Your task to perform on an android device: Open Chrome and go to settings Image 0: 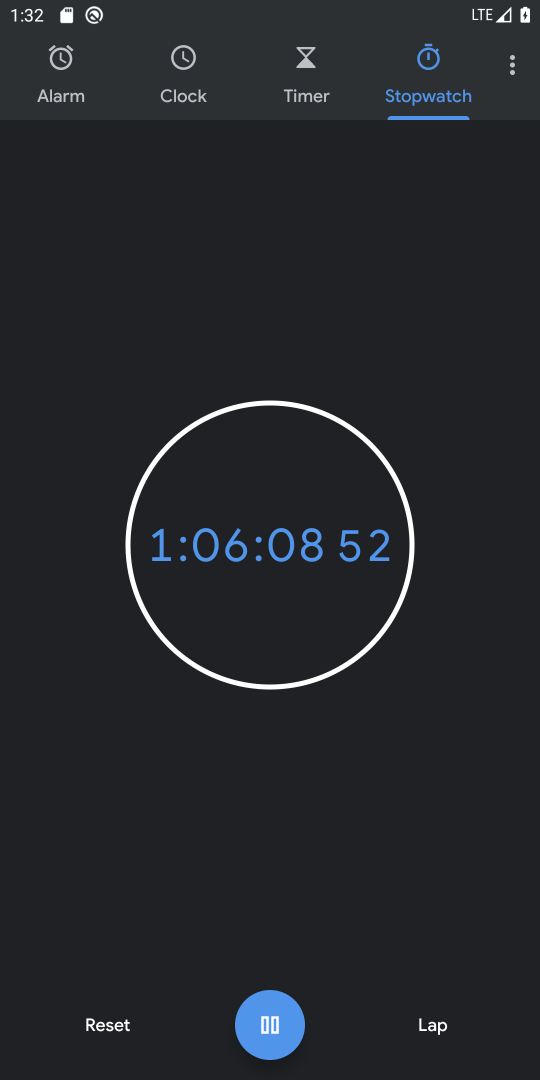
Step 0: press home button
Your task to perform on an android device: Open Chrome and go to settings Image 1: 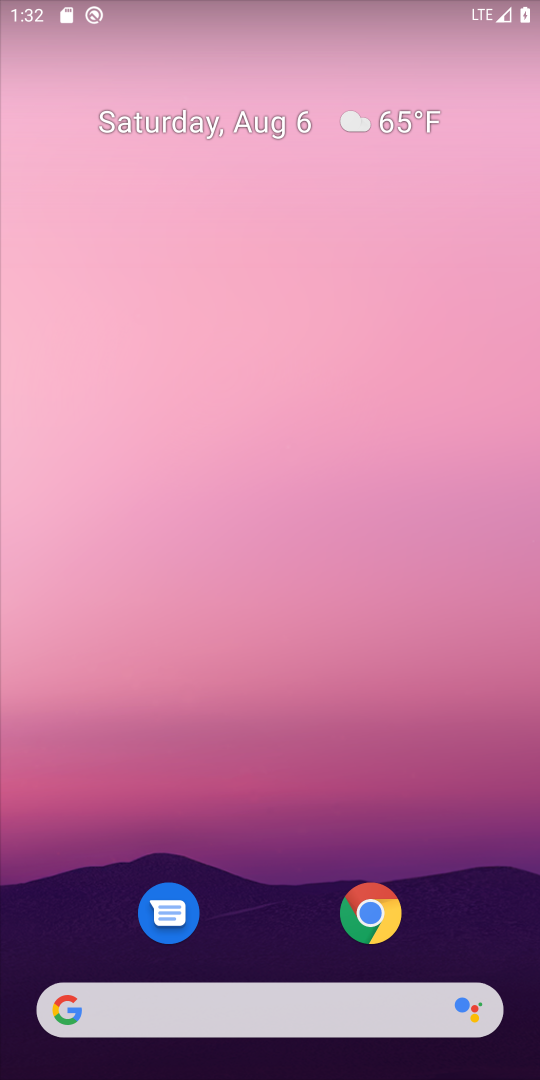
Step 1: drag from (444, 923) to (471, 329)
Your task to perform on an android device: Open Chrome and go to settings Image 2: 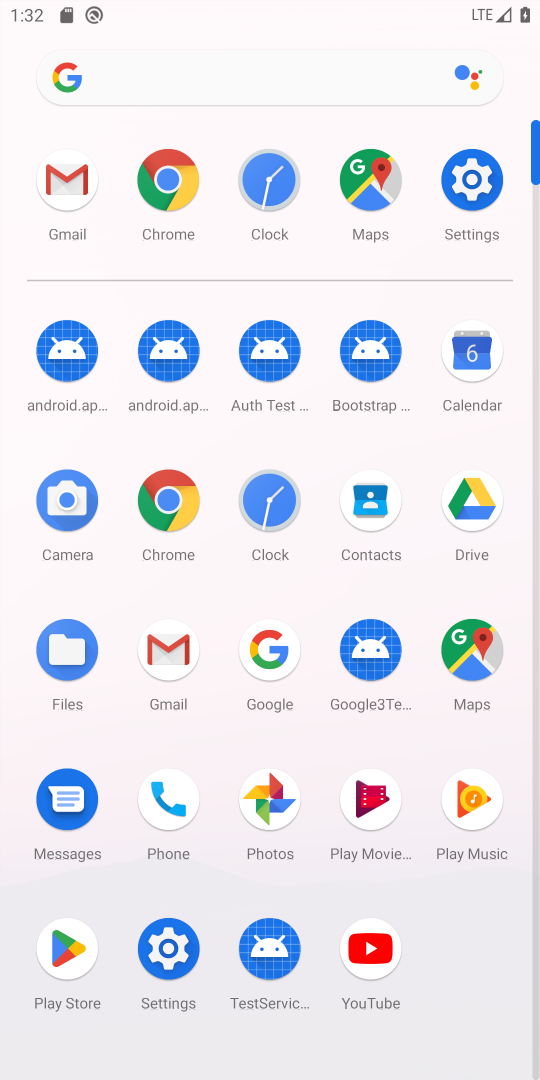
Step 2: click (168, 498)
Your task to perform on an android device: Open Chrome and go to settings Image 3: 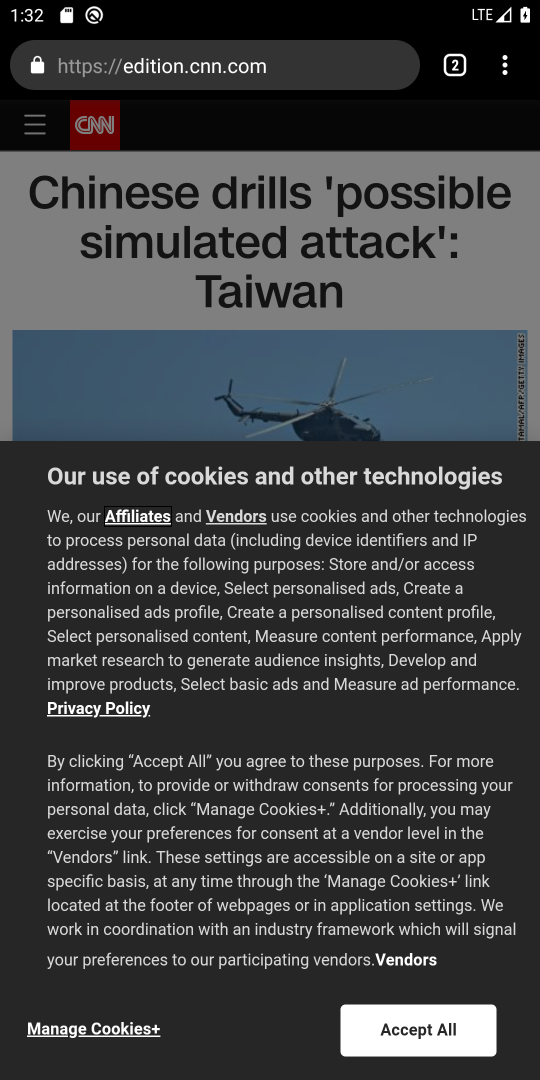
Step 3: click (509, 72)
Your task to perform on an android device: Open Chrome and go to settings Image 4: 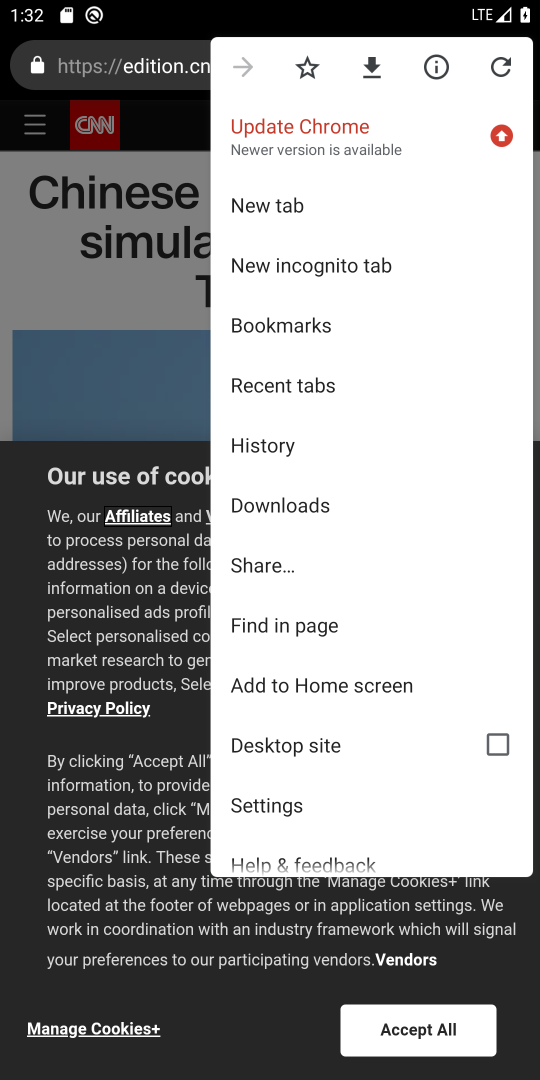
Step 4: click (376, 809)
Your task to perform on an android device: Open Chrome and go to settings Image 5: 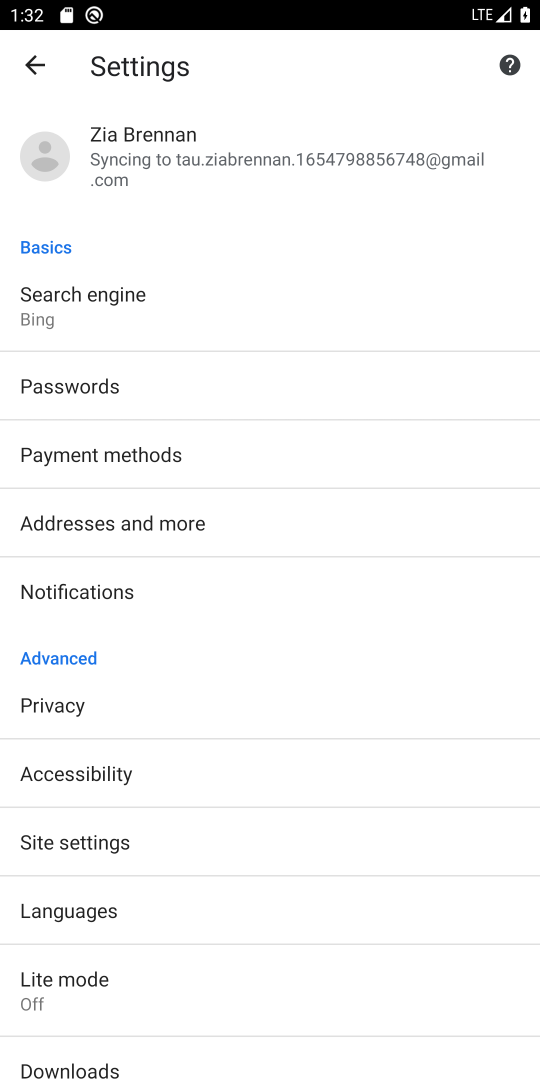
Step 5: task complete